Your task to perform on an android device: Open Youtube and go to the subscriptions tab Image 0: 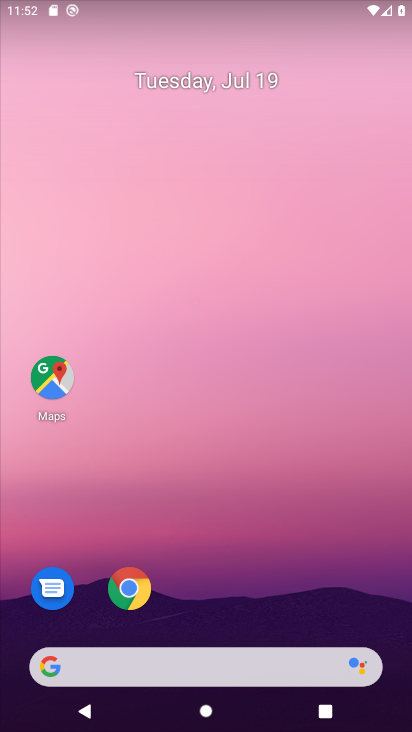
Step 0: drag from (212, 621) to (218, 7)
Your task to perform on an android device: Open Youtube and go to the subscriptions tab Image 1: 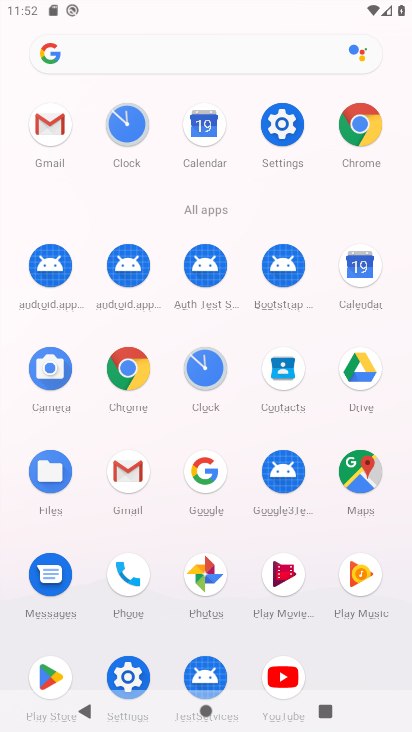
Step 1: click (284, 670)
Your task to perform on an android device: Open Youtube and go to the subscriptions tab Image 2: 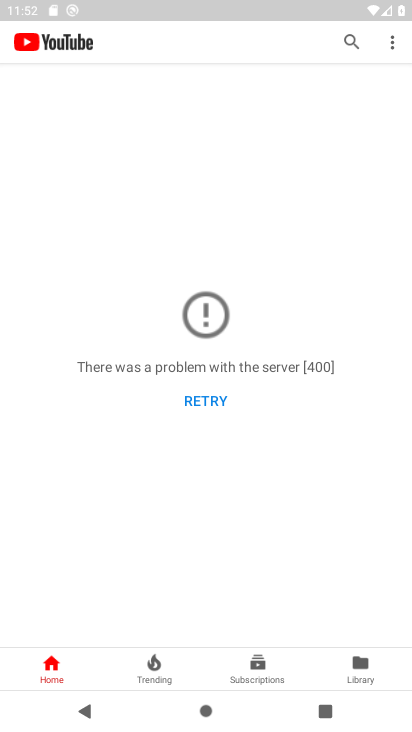
Step 2: click (210, 393)
Your task to perform on an android device: Open Youtube and go to the subscriptions tab Image 3: 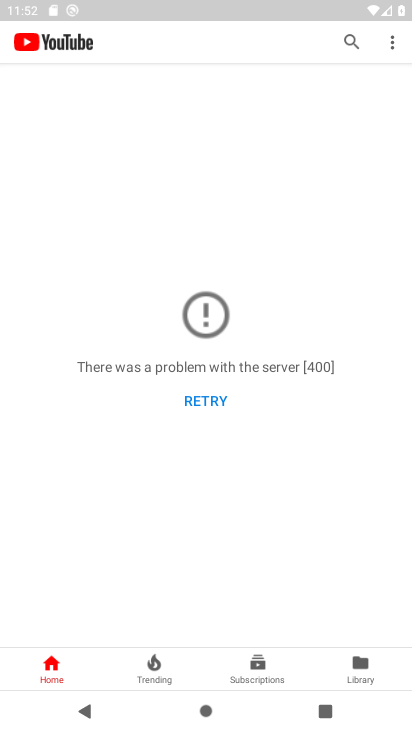
Step 3: click (206, 397)
Your task to perform on an android device: Open Youtube and go to the subscriptions tab Image 4: 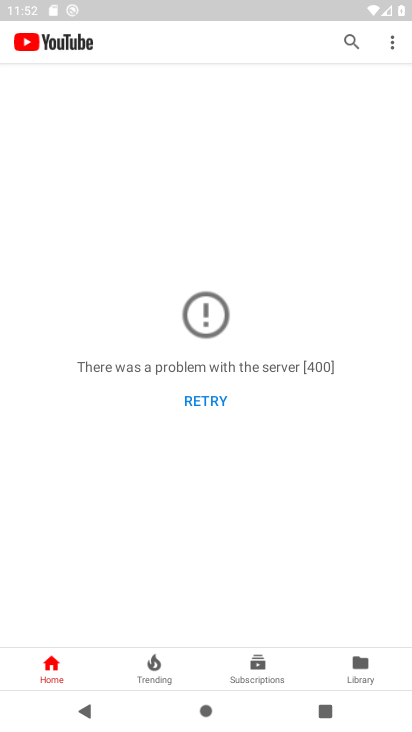
Step 4: click (261, 675)
Your task to perform on an android device: Open Youtube and go to the subscriptions tab Image 5: 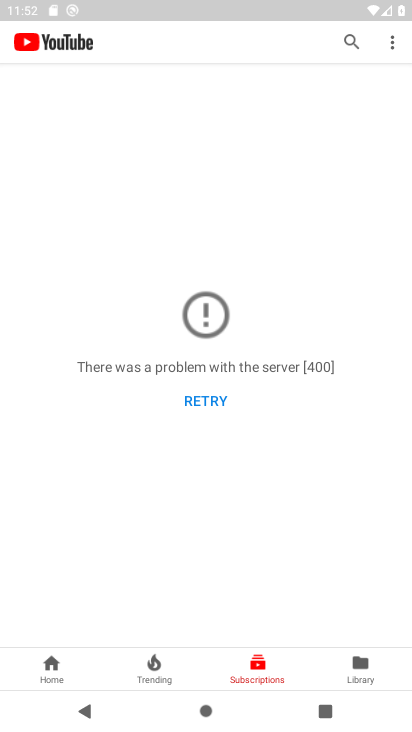
Step 5: click (210, 400)
Your task to perform on an android device: Open Youtube and go to the subscriptions tab Image 6: 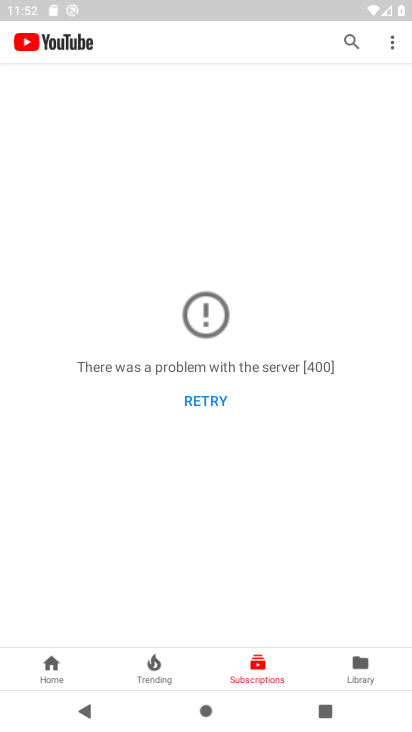
Step 6: click (209, 401)
Your task to perform on an android device: Open Youtube and go to the subscriptions tab Image 7: 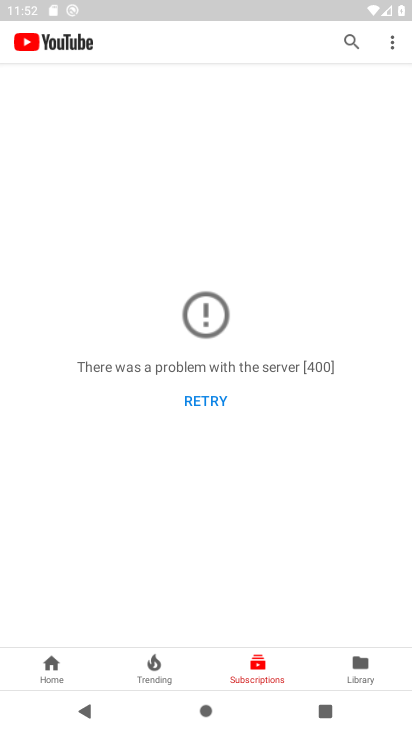
Step 7: task complete